Your task to perform on an android device: uninstall "PUBG MOBILE" Image 0: 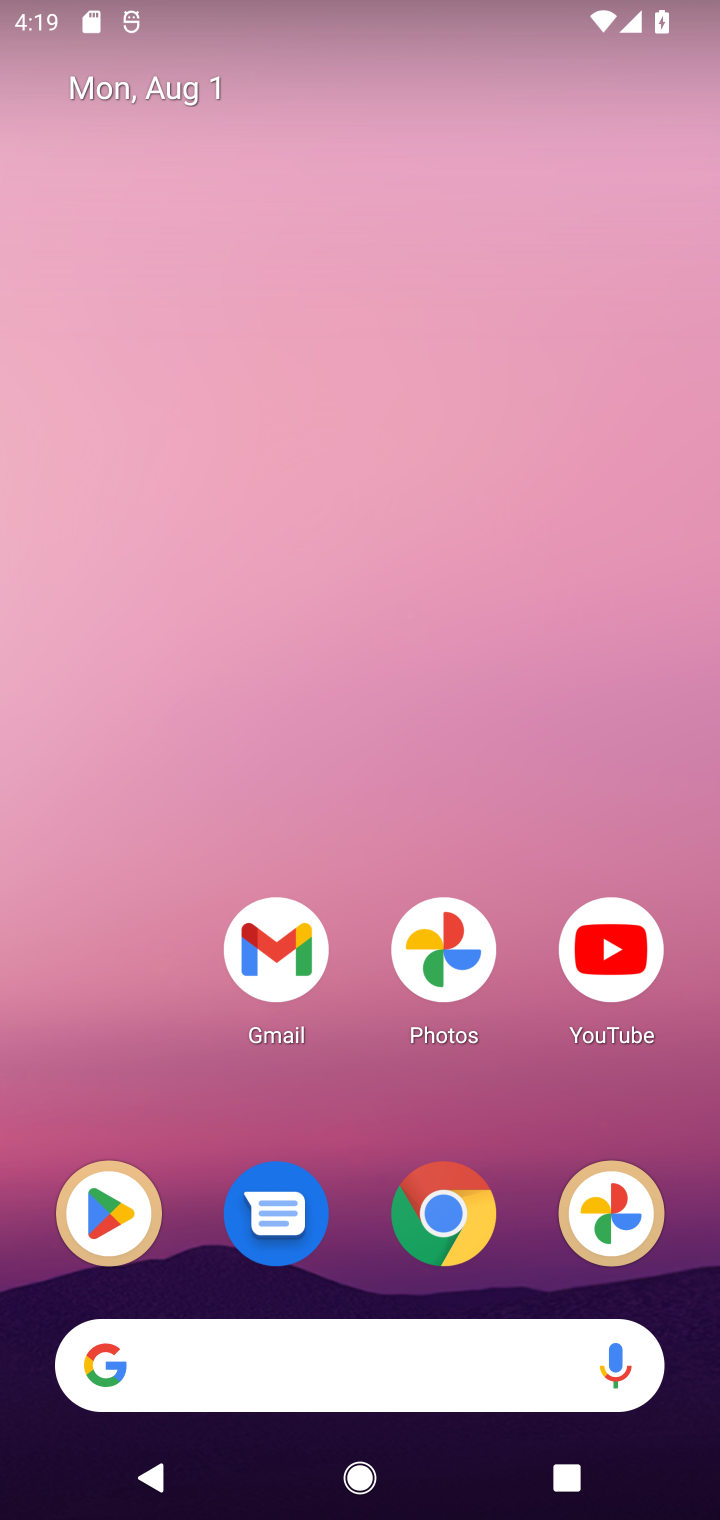
Step 0: drag from (504, 993) to (472, 3)
Your task to perform on an android device: uninstall "PUBG MOBILE" Image 1: 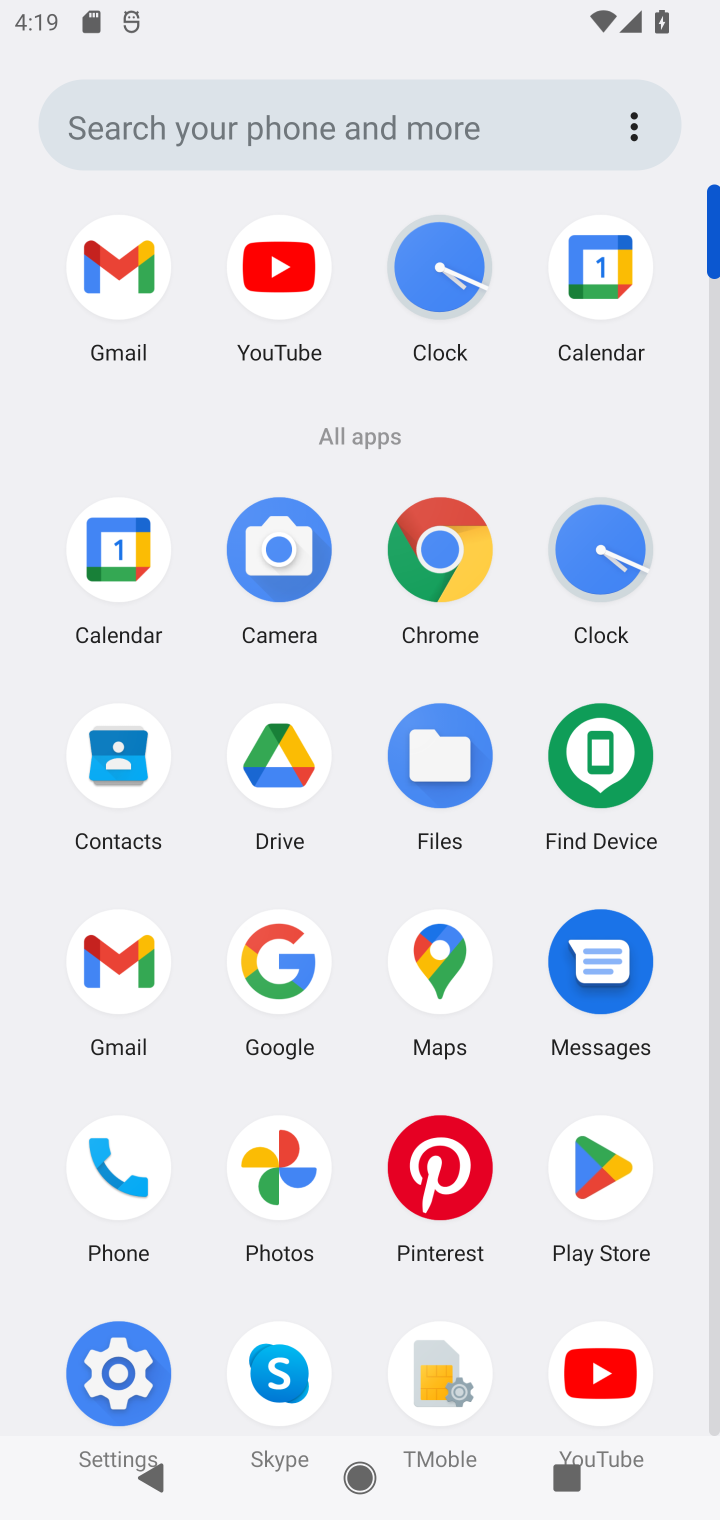
Step 1: click (590, 1165)
Your task to perform on an android device: uninstall "PUBG MOBILE" Image 2: 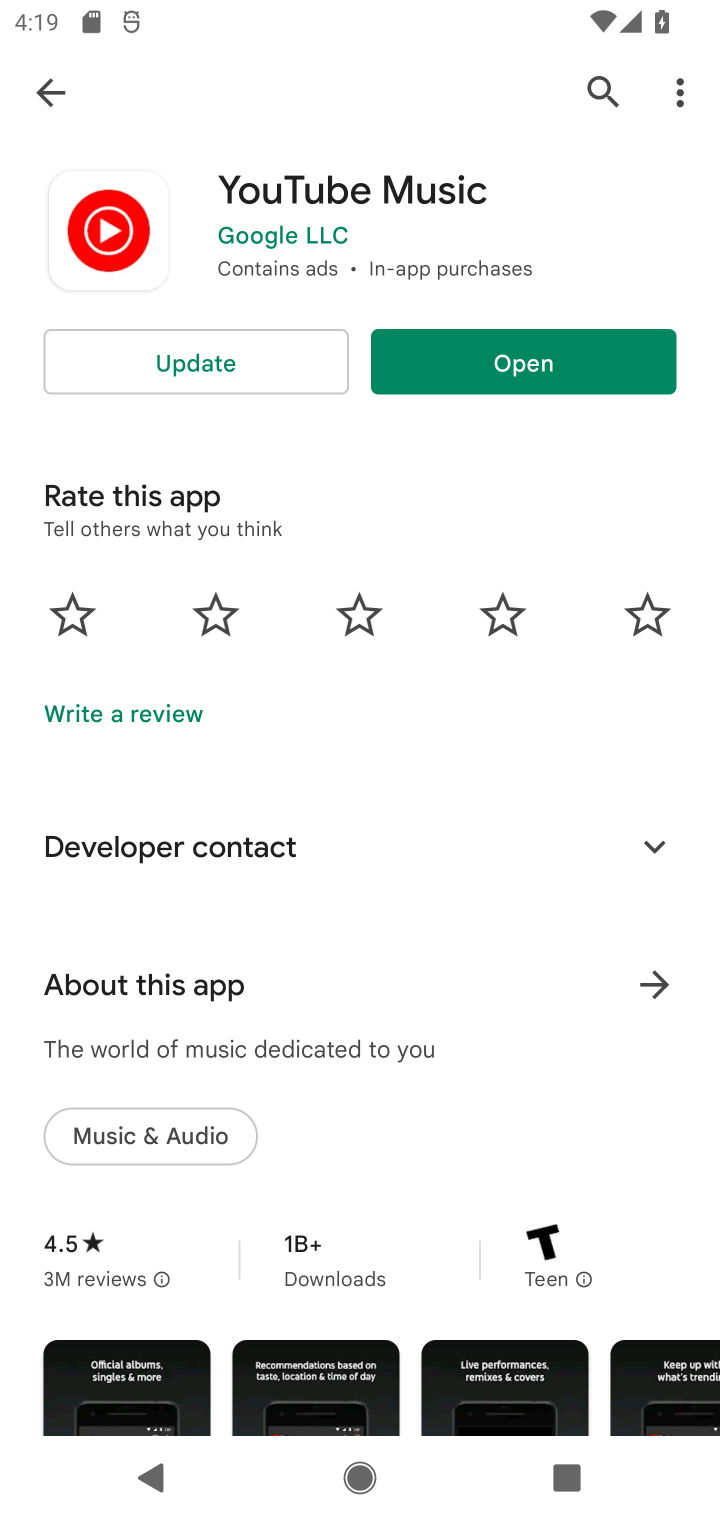
Step 2: click (597, 87)
Your task to perform on an android device: uninstall "PUBG MOBILE" Image 3: 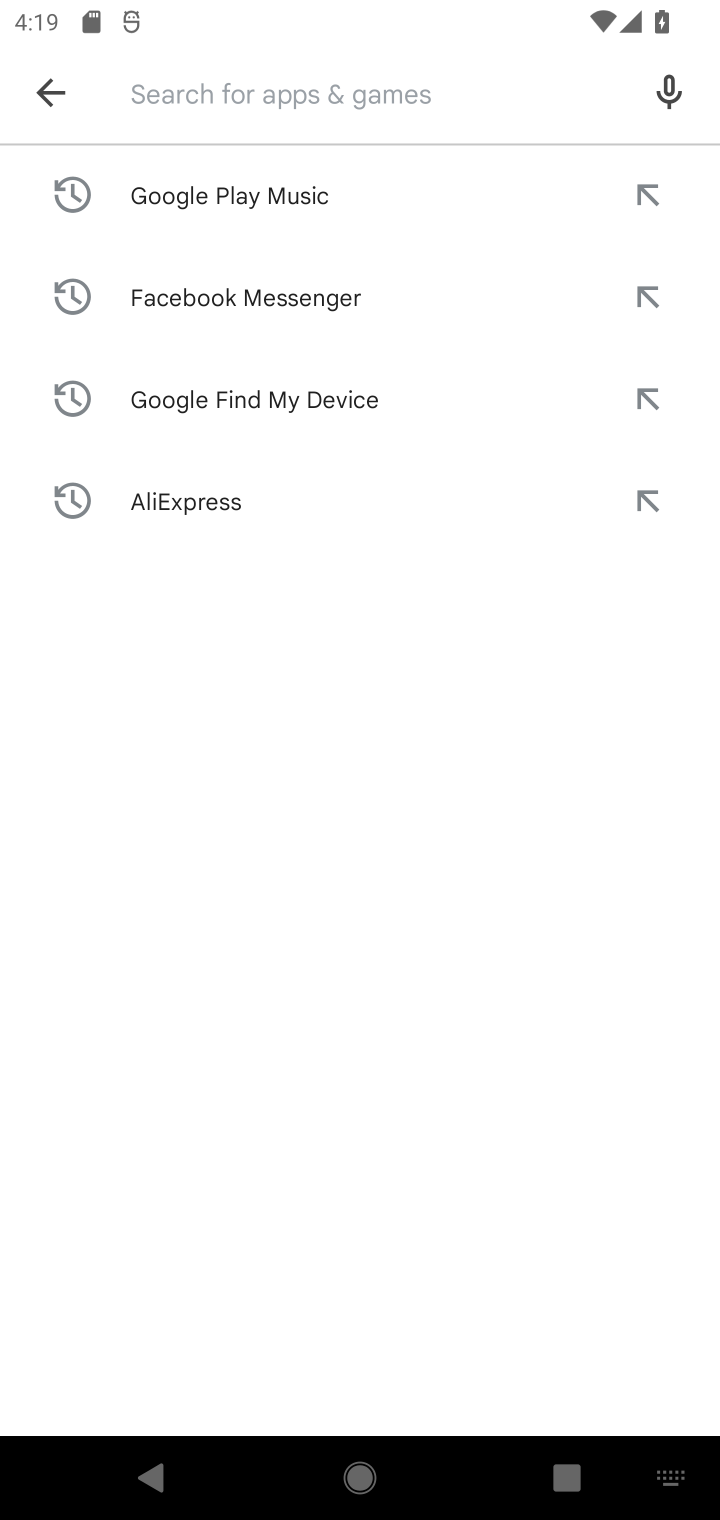
Step 3: type "PUBG MOBILE"
Your task to perform on an android device: uninstall "PUBG MOBILE" Image 4: 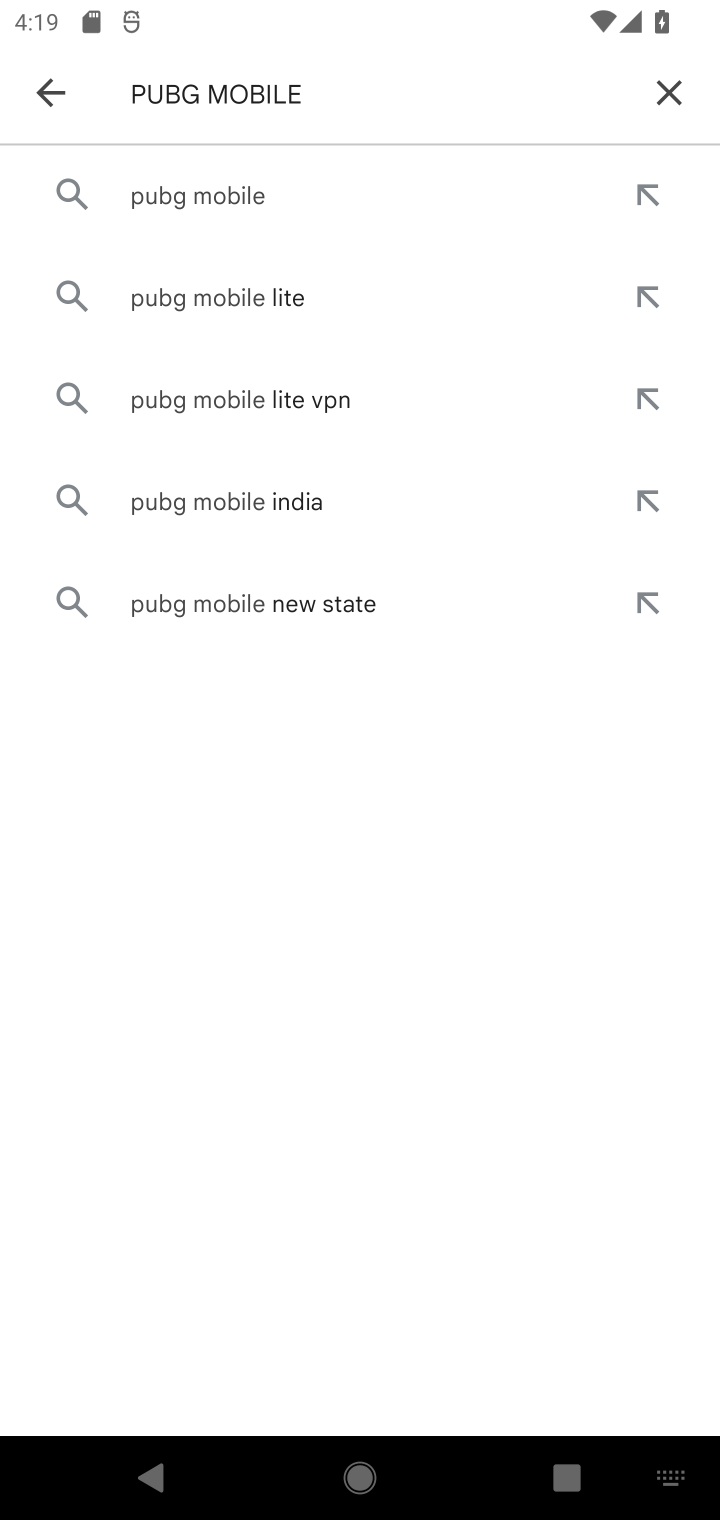
Step 4: press enter
Your task to perform on an android device: uninstall "PUBG MOBILE" Image 5: 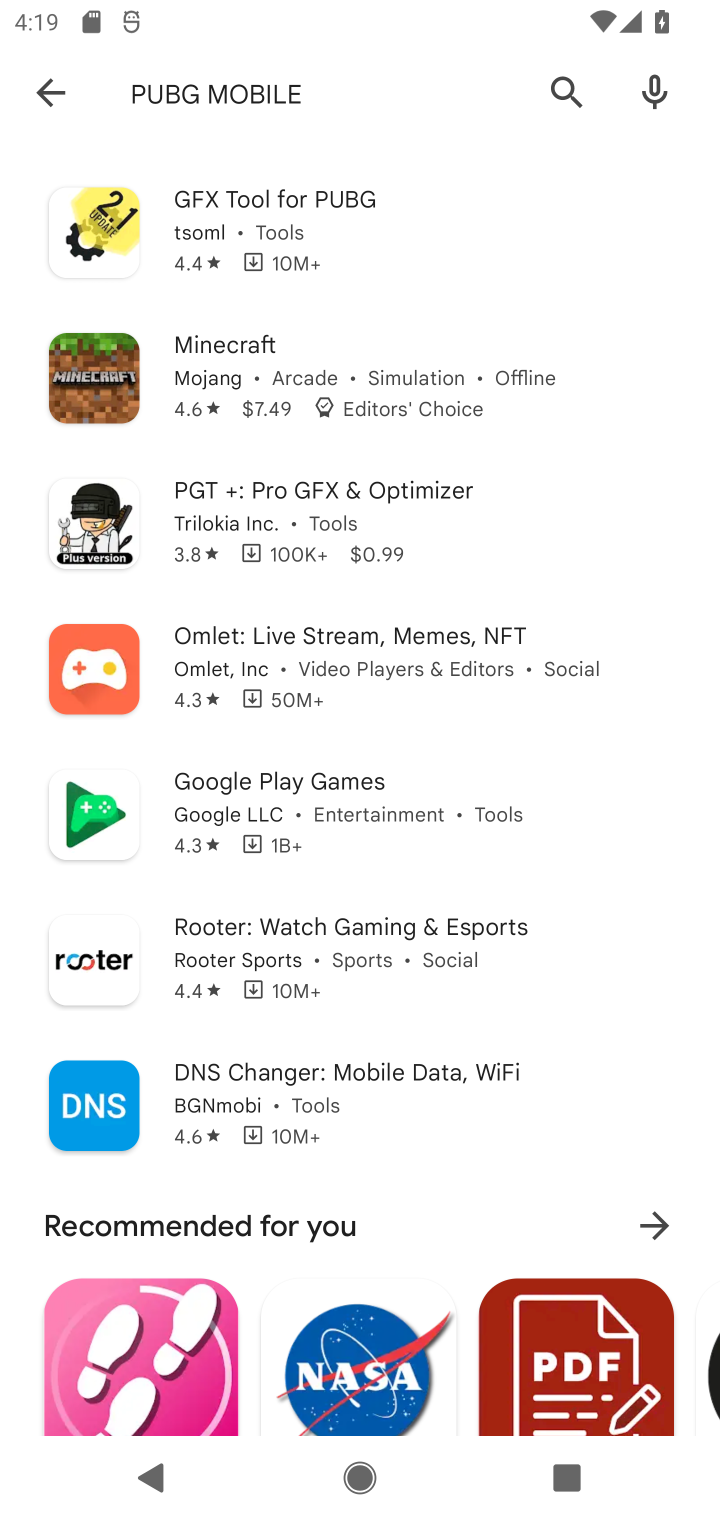
Step 5: task complete